Your task to perform on an android device: change the clock display to show seconds Image 0: 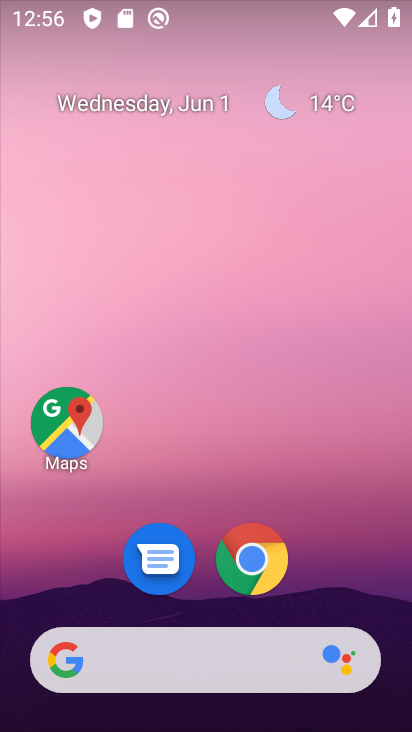
Step 0: drag from (385, 660) to (324, 183)
Your task to perform on an android device: change the clock display to show seconds Image 1: 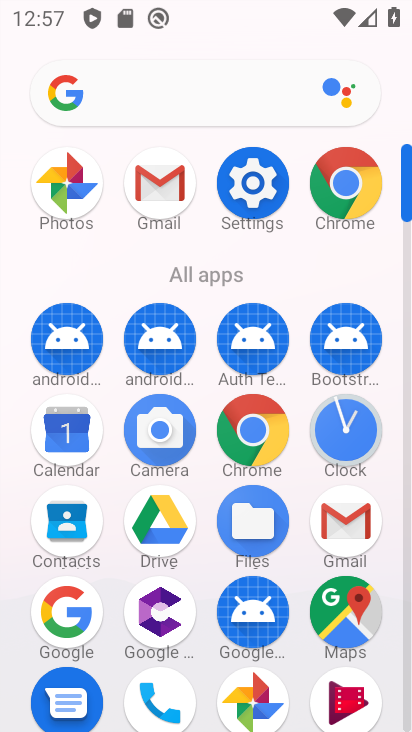
Step 1: click (343, 428)
Your task to perform on an android device: change the clock display to show seconds Image 2: 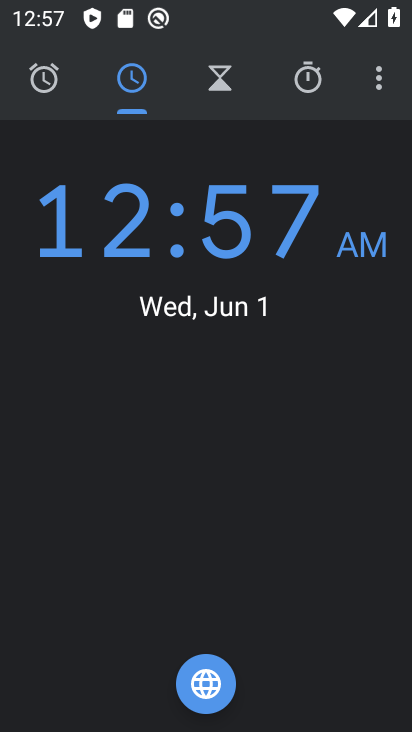
Step 2: click (377, 82)
Your task to perform on an android device: change the clock display to show seconds Image 3: 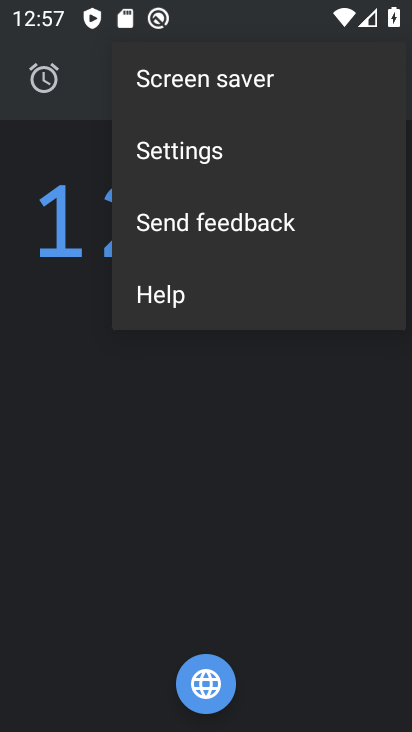
Step 3: click (191, 161)
Your task to perform on an android device: change the clock display to show seconds Image 4: 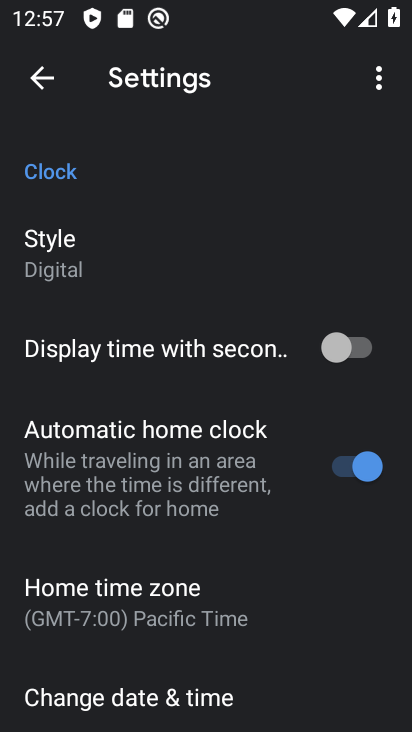
Step 4: click (368, 340)
Your task to perform on an android device: change the clock display to show seconds Image 5: 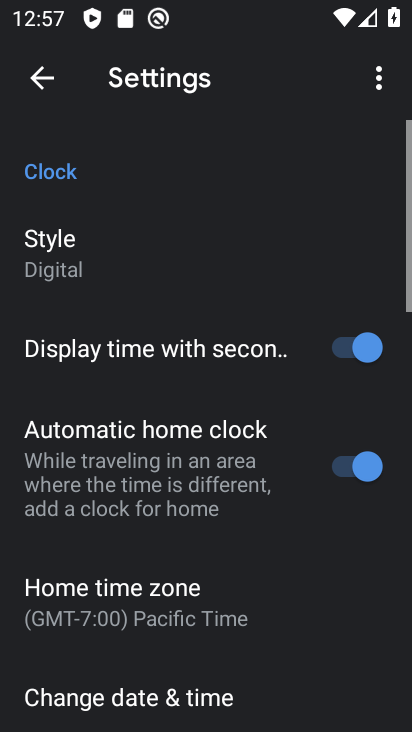
Step 5: task complete